Your task to perform on an android device: check battery use Image 0: 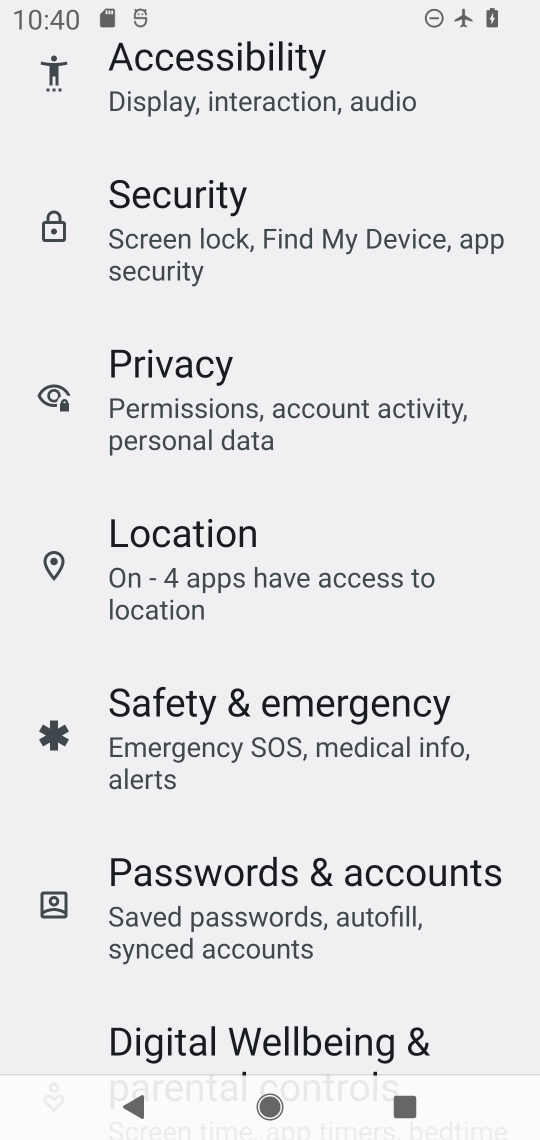
Step 0: press home button
Your task to perform on an android device: check battery use Image 1: 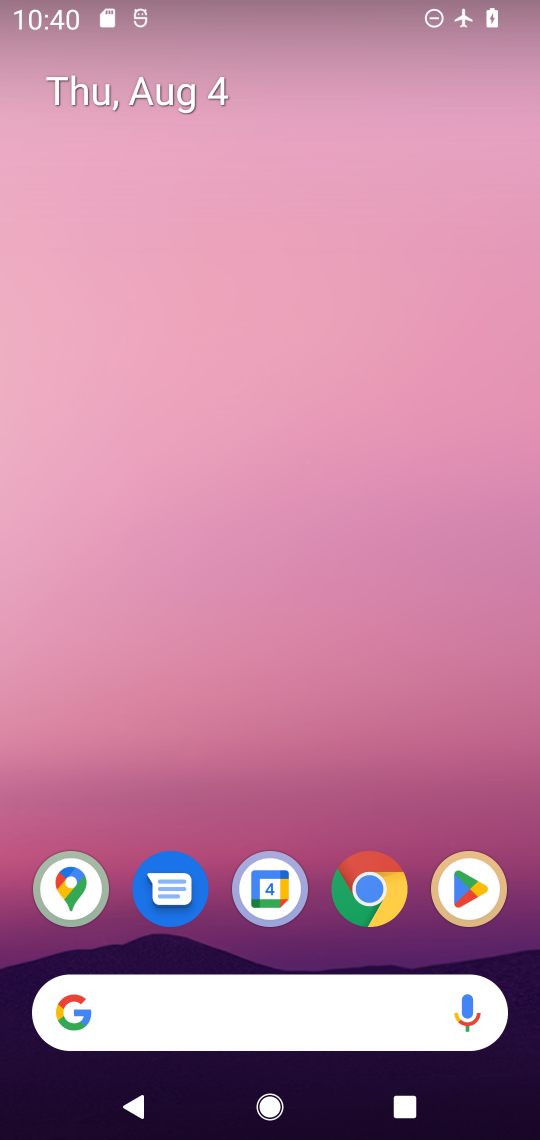
Step 1: drag from (427, 805) to (414, 305)
Your task to perform on an android device: check battery use Image 2: 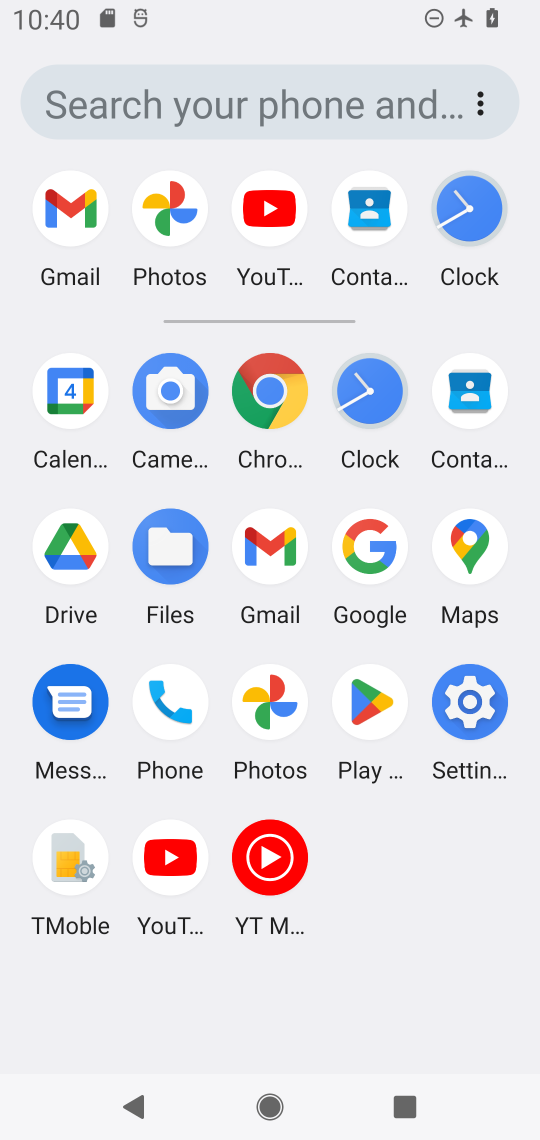
Step 2: click (473, 698)
Your task to perform on an android device: check battery use Image 3: 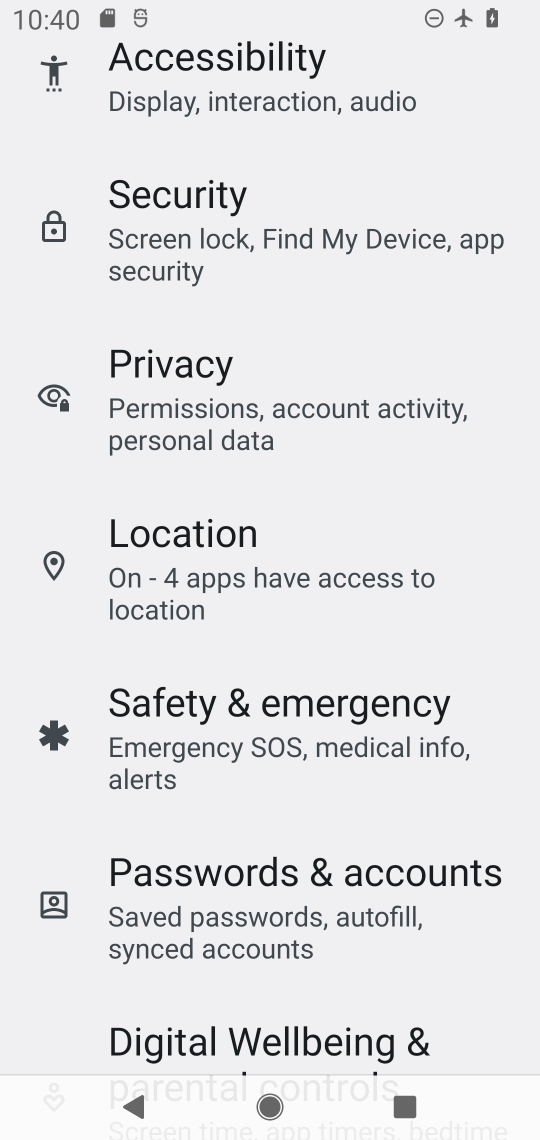
Step 3: drag from (400, 436) to (421, 539)
Your task to perform on an android device: check battery use Image 4: 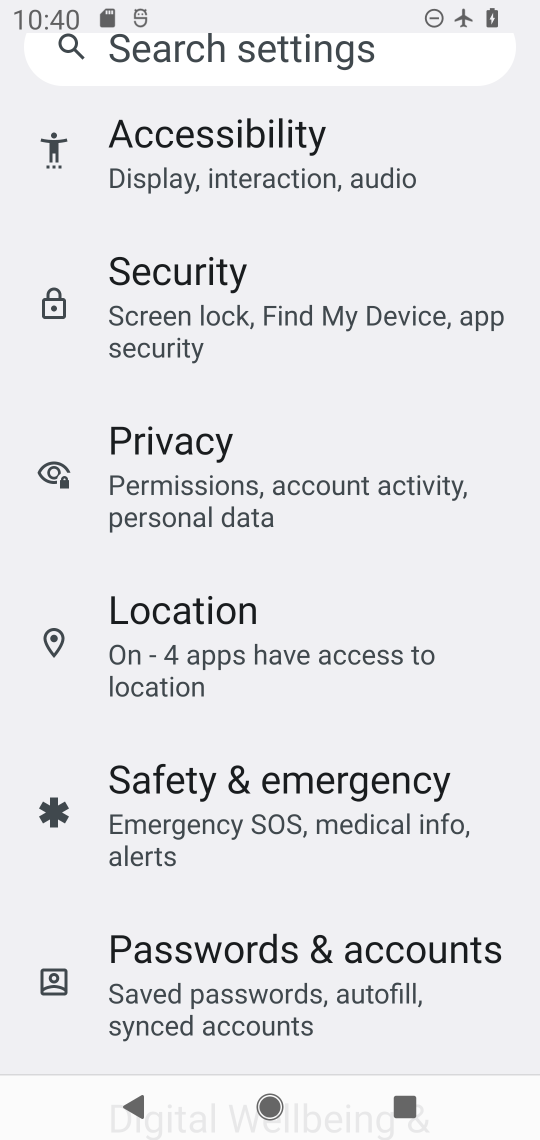
Step 4: drag from (464, 363) to (479, 500)
Your task to perform on an android device: check battery use Image 5: 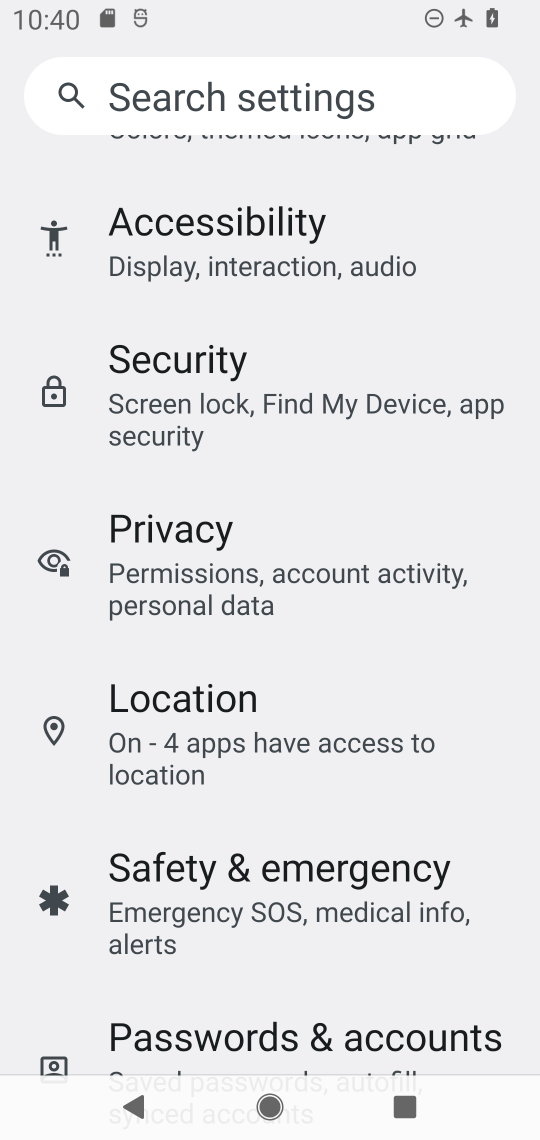
Step 5: drag from (457, 268) to (476, 471)
Your task to perform on an android device: check battery use Image 6: 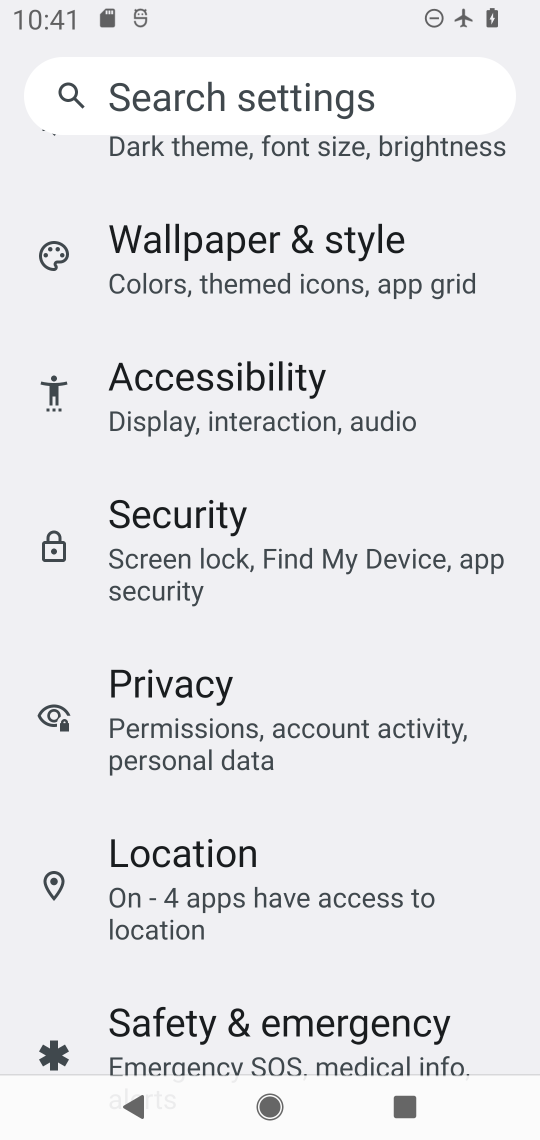
Step 6: drag from (475, 378) to (474, 600)
Your task to perform on an android device: check battery use Image 7: 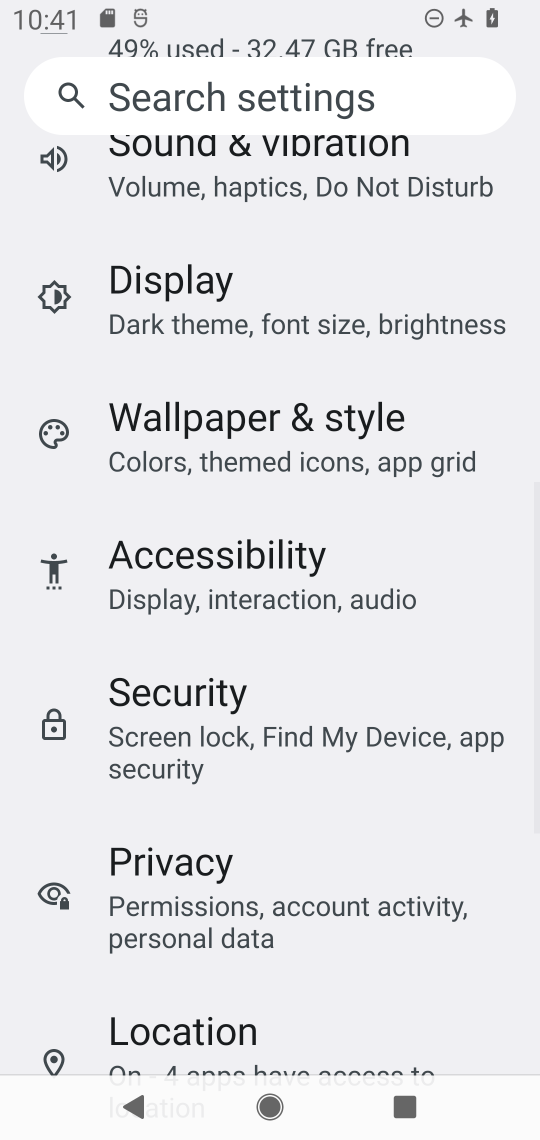
Step 7: drag from (470, 399) to (470, 588)
Your task to perform on an android device: check battery use Image 8: 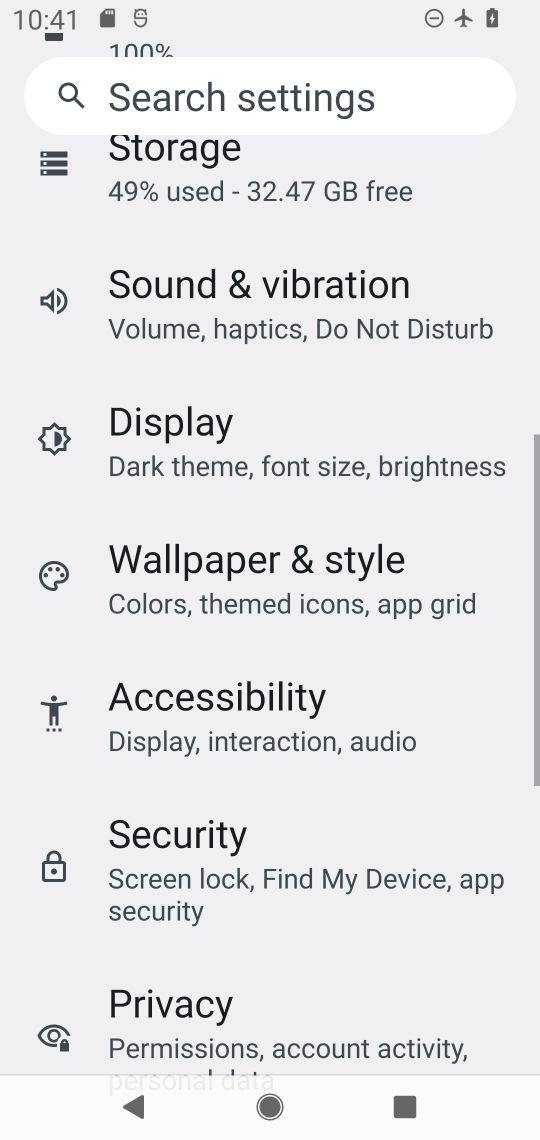
Step 8: drag from (472, 401) to (462, 582)
Your task to perform on an android device: check battery use Image 9: 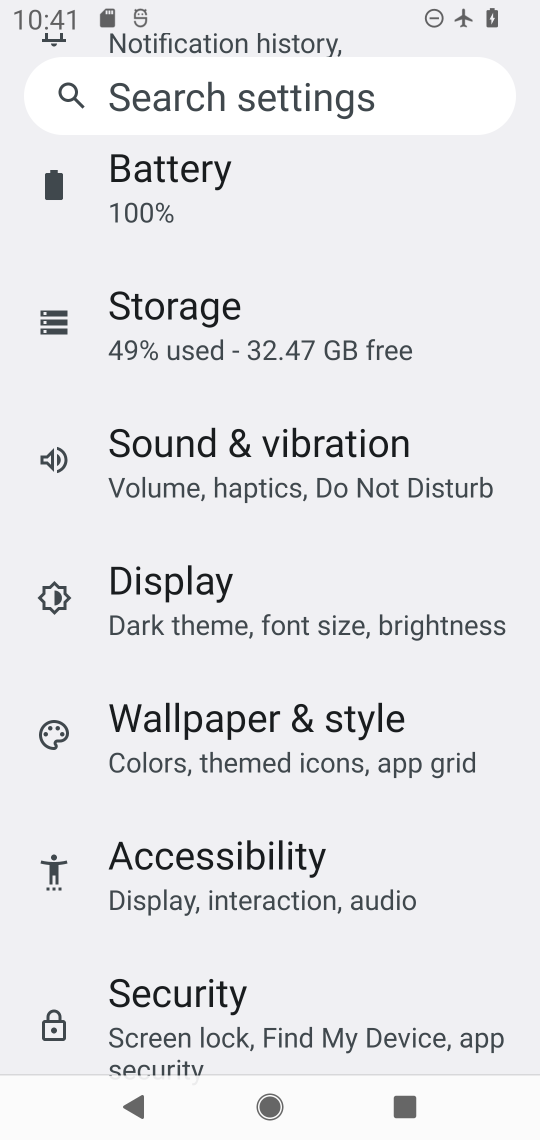
Step 9: drag from (440, 358) to (451, 571)
Your task to perform on an android device: check battery use Image 10: 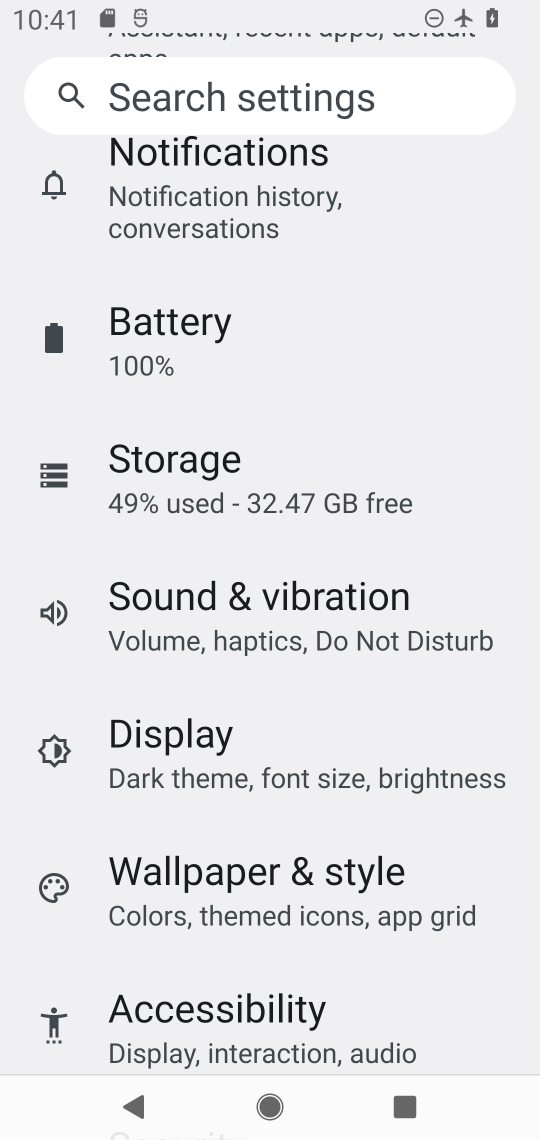
Step 10: drag from (436, 291) to (437, 534)
Your task to perform on an android device: check battery use Image 11: 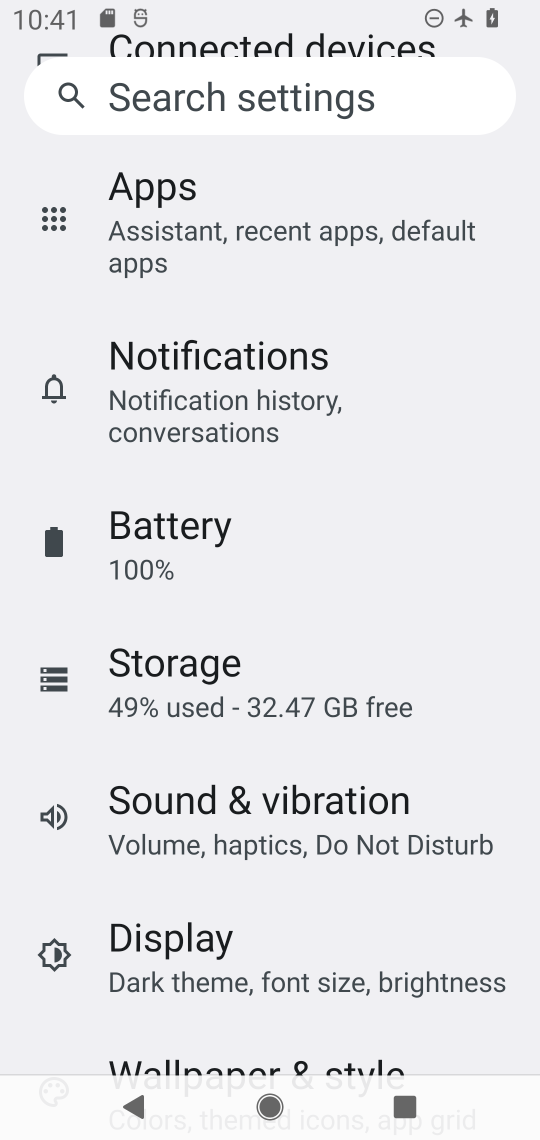
Step 11: click (263, 527)
Your task to perform on an android device: check battery use Image 12: 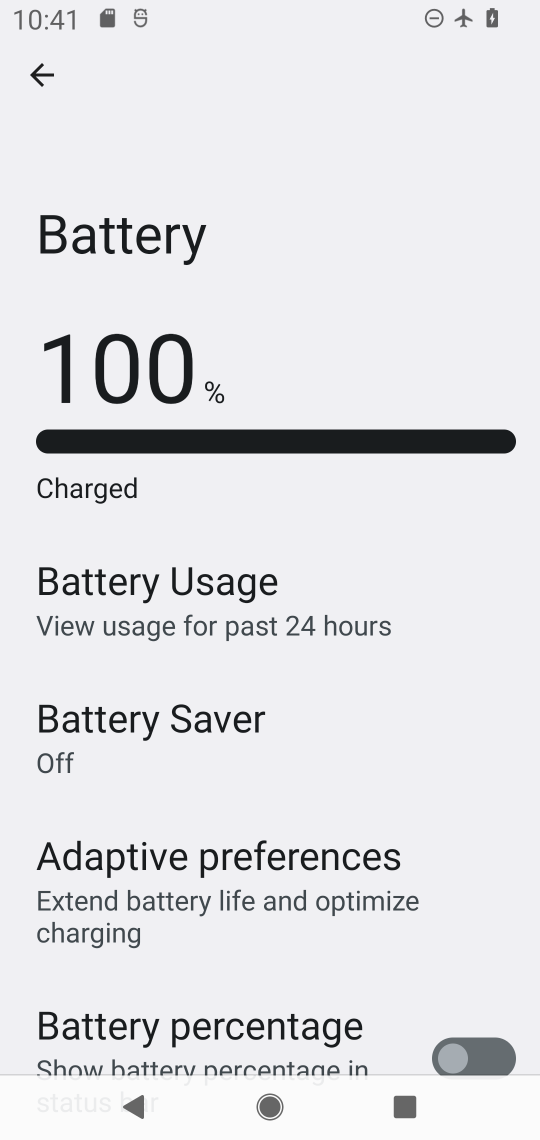
Step 12: click (256, 593)
Your task to perform on an android device: check battery use Image 13: 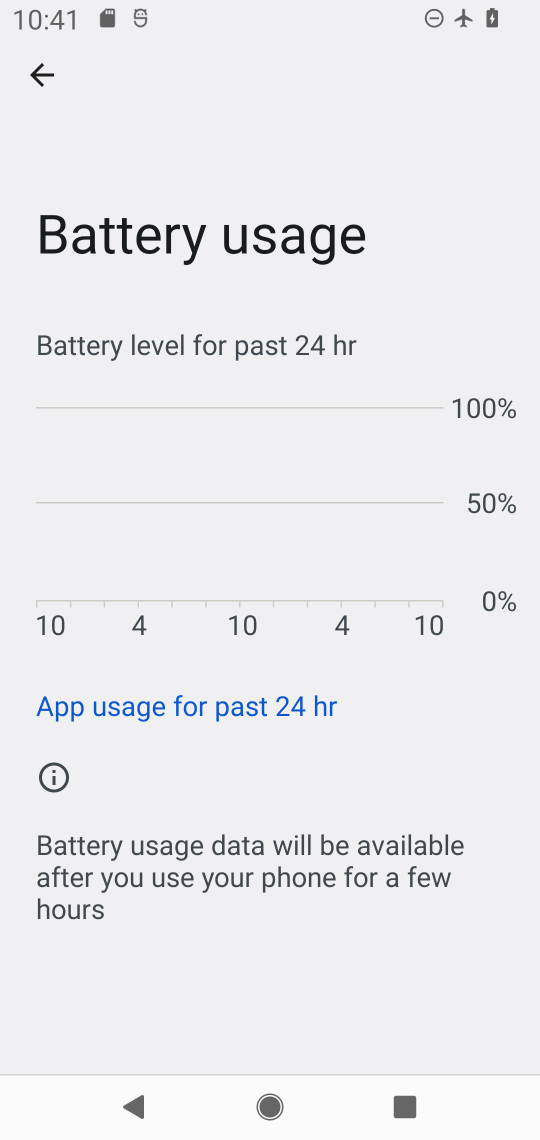
Step 13: task complete